Your task to perform on an android device: turn off improve location accuracy Image 0: 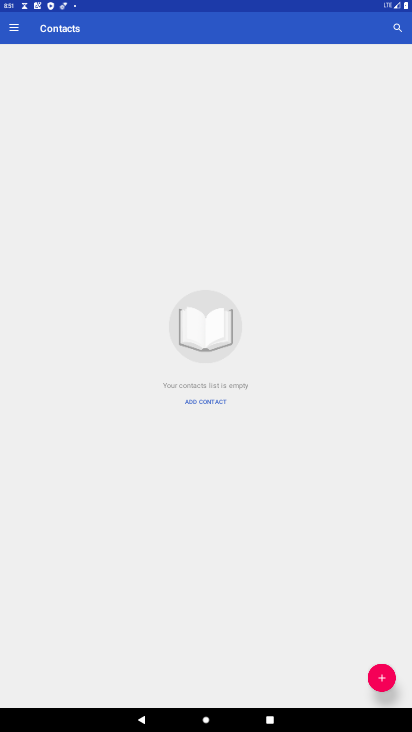
Step 0: press home button
Your task to perform on an android device: turn off improve location accuracy Image 1: 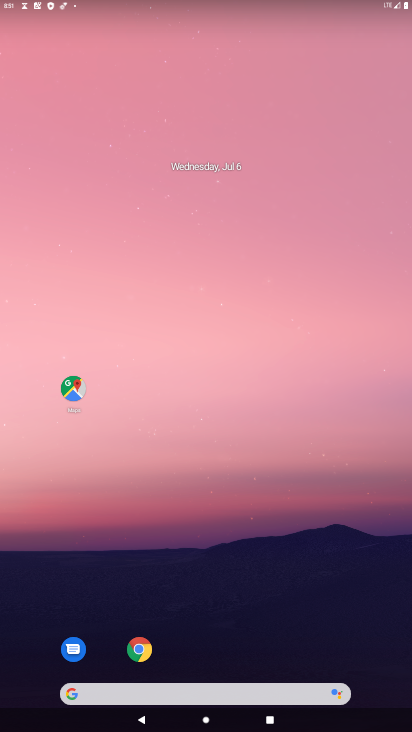
Step 1: drag from (211, 656) to (195, 33)
Your task to perform on an android device: turn off improve location accuracy Image 2: 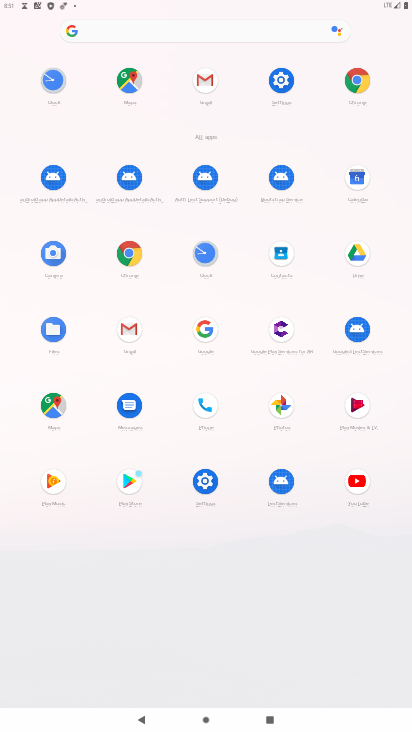
Step 2: click (278, 76)
Your task to perform on an android device: turn off improve location accuracy Image 3: 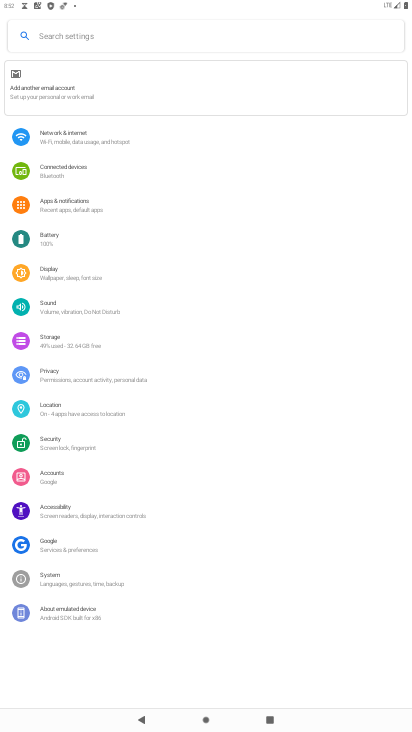
Step 3: click (78, 407)
Your task to perform on an android device: turn off improve location accuracy Image 4: 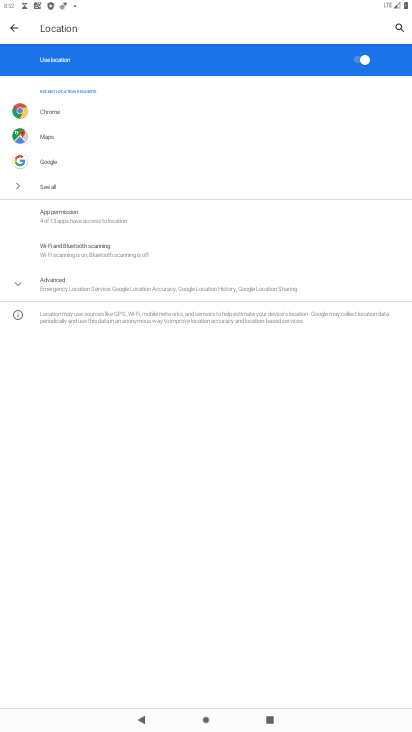
Step 4: click (22, 279)
Your task to perform on an android device: turn off improve location accuracy Image 5: 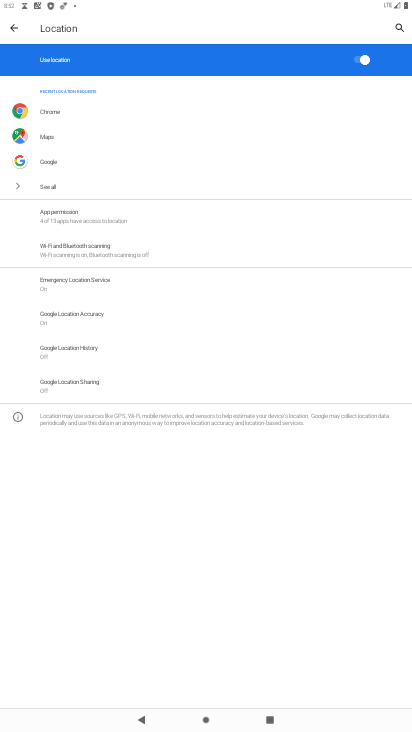
Step 5: click (24, 318)
Your task to perform on an android device: turn off improve location accuracy Image 6: 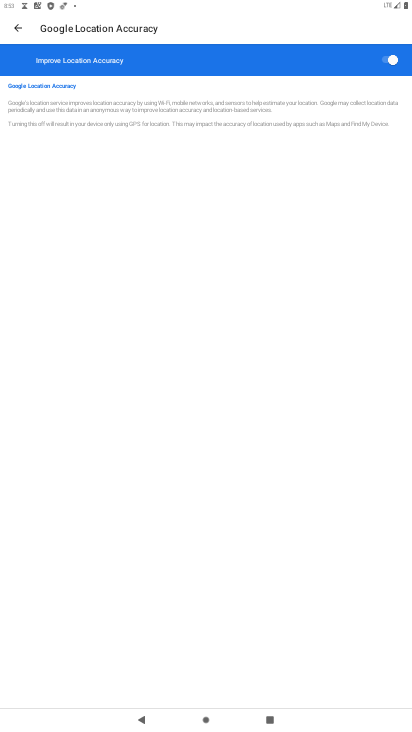
Step 6: click (389, 56)
Your task to perform on an android device: turn off improve location accuracy Image 7: 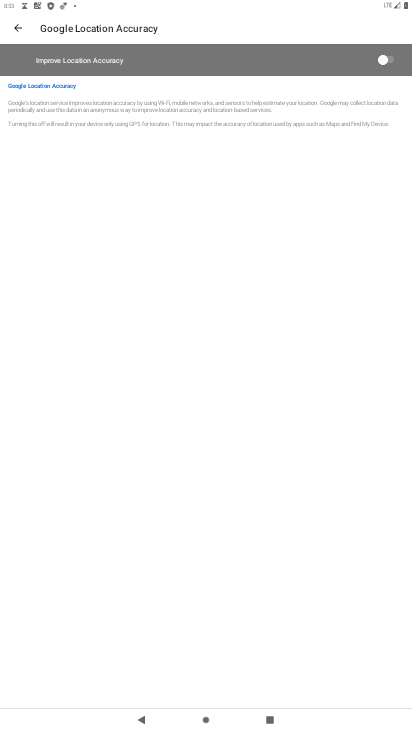
Step 7: task complete